Your task to perform on an android device: turn on the 12-hour format for clock Image 0: 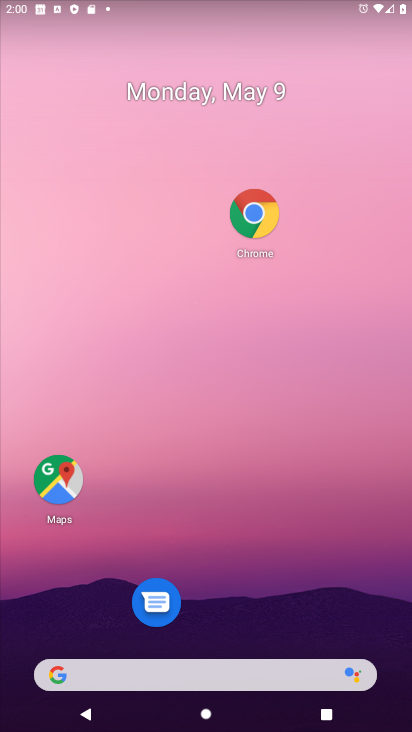
Step 0: drag from (358, 609) to (346, 57)
Your task to perform on an android device: turn on the 12-hour format for clock Image 1: 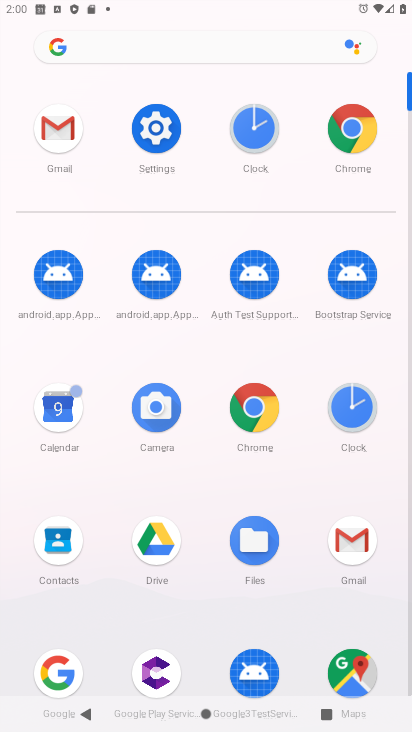
Step 1: click (173, 145)
Your task to perform on an android device: turn on the 12-hour format for clock Image 2: 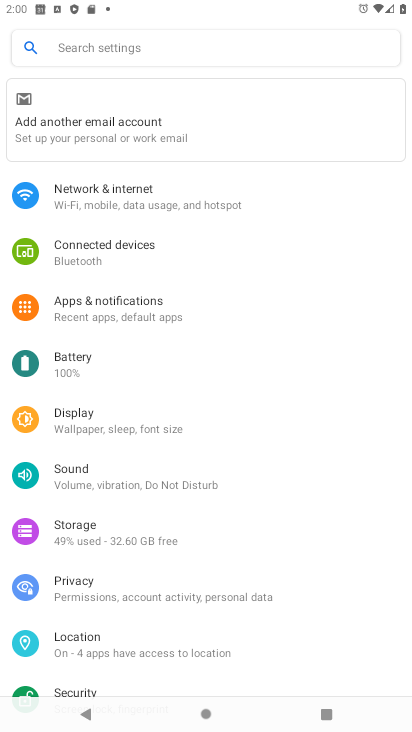
Step 2: press home button
Your task to perform on an android device: turn on the 12-hour format for clock Image 3: 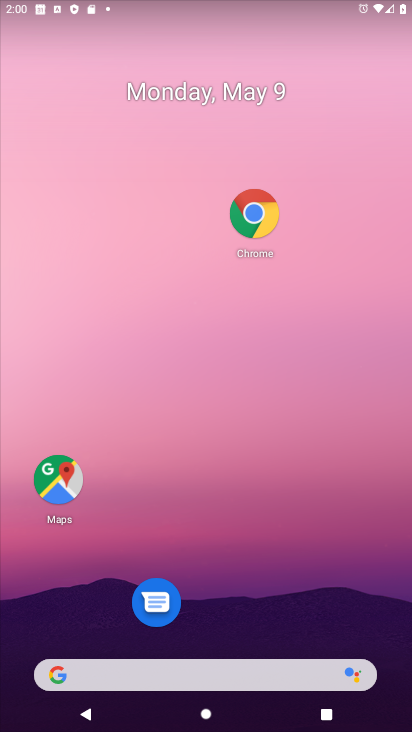
Step 3: drag from (272, 543) to (296, 192)
Your task to perform on an android device: turn on the 12-hour format for clock Image 4: 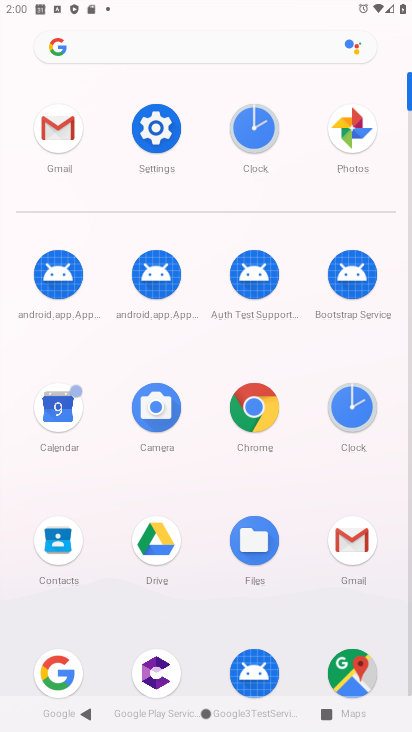
Step 4: click (269, 126)
Your task to perform on an android device: turn on the 12-hour format for clock Image 5: 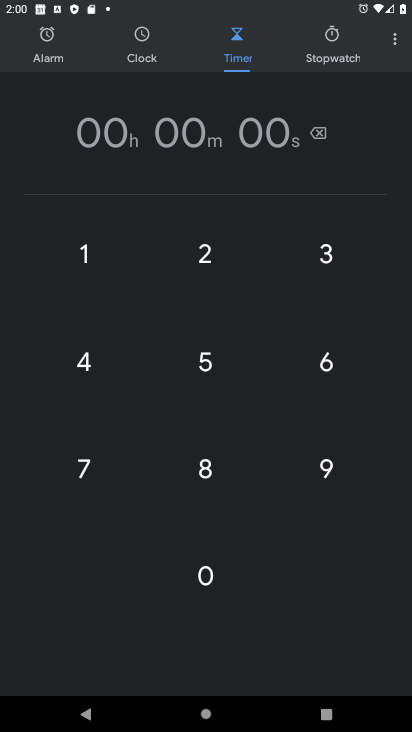
Step 5: click (394, 35)
Your task to perform on an android device: turn on the 12-hour format for clock Image 6: 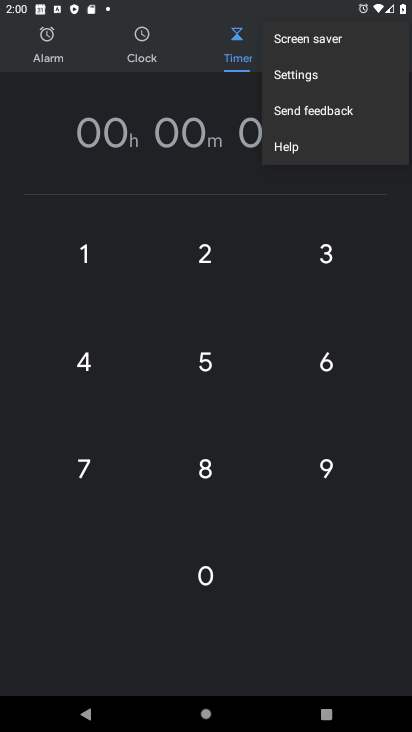
Step 6: click (352, 63)
Your task to perform on an android device: turn on the 12-hour format for clock Image 7: 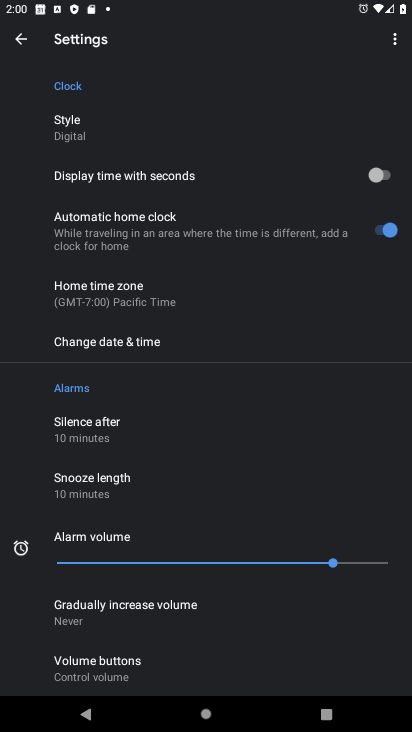
Step 7: click (171, 347)
Your task to perform on an android device: turn on the 12-hour format for clock Image 8: 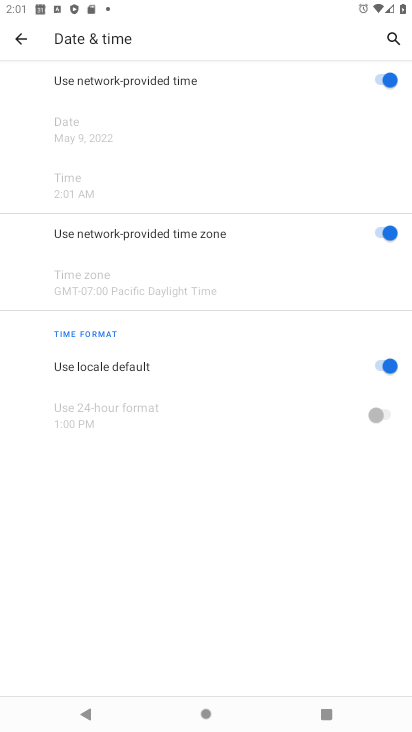
Step 8: click (367, 369)
Your task to perform on an android device: turn on the 12-hour format for clock Image 9: 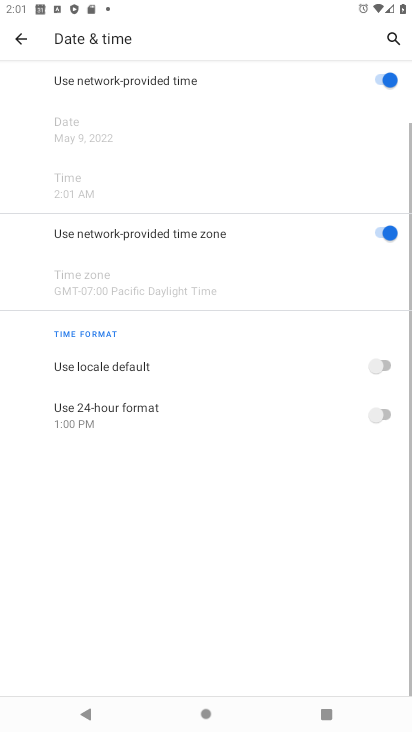
Step 9: click (367, 369)
Your task to perform on an android device: turn on the 12-hour format for clock Image 10: 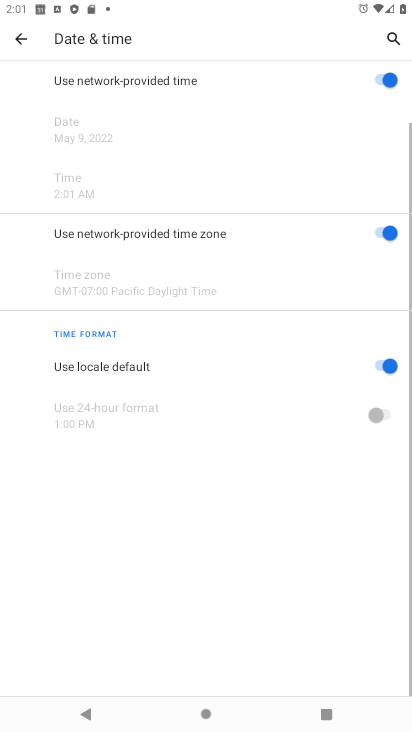
Step 10: task complete